Your task to perform on an android device: Open calendar and show me the fourth week of next month Image 0: 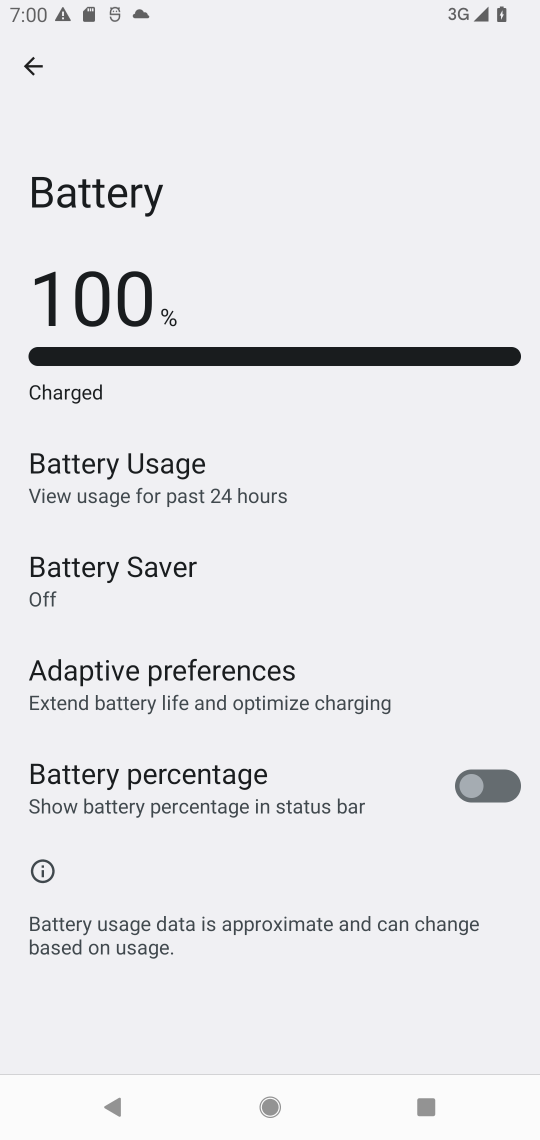
Step 0: press home button
Your task to perform on an android device: Open calendar and show me the fourth week of next month Image 1: 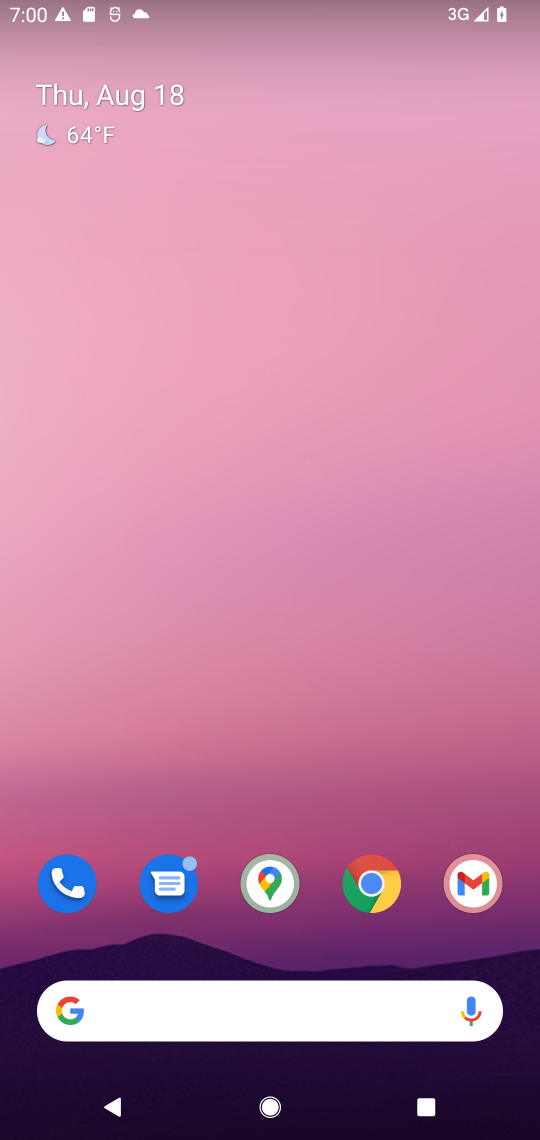
Step 1: drag from (30, 1077) to (329, 501)
Your task to perform on an android device: Open calendar and show me the fourth week of next month Image 2: 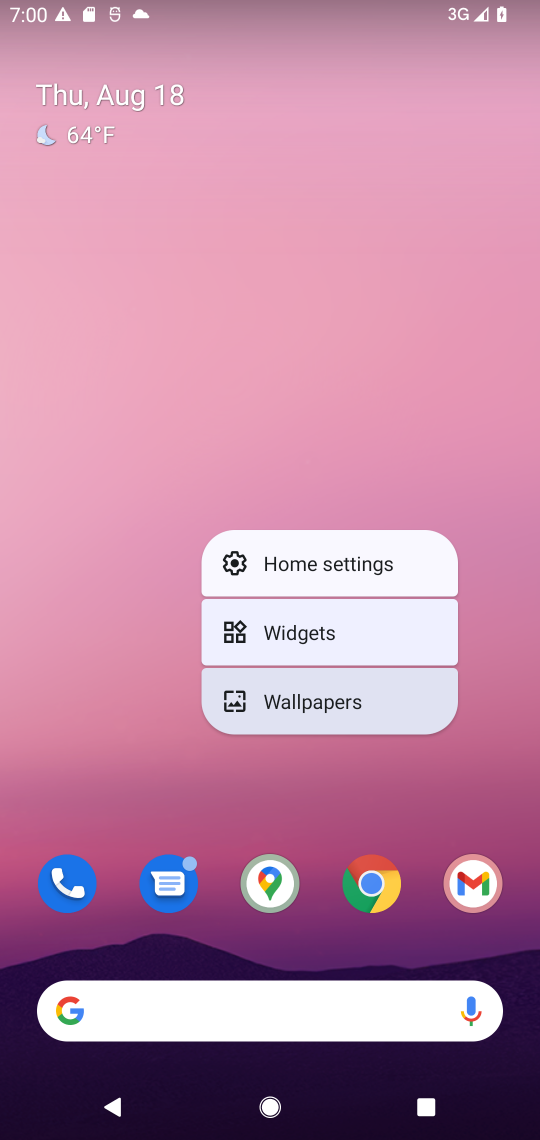
Step 2: drag from (32, 1105) to (215, 578)
Your task to perform on an android device: Open calendar and show me the fourth week of next month Image 3: 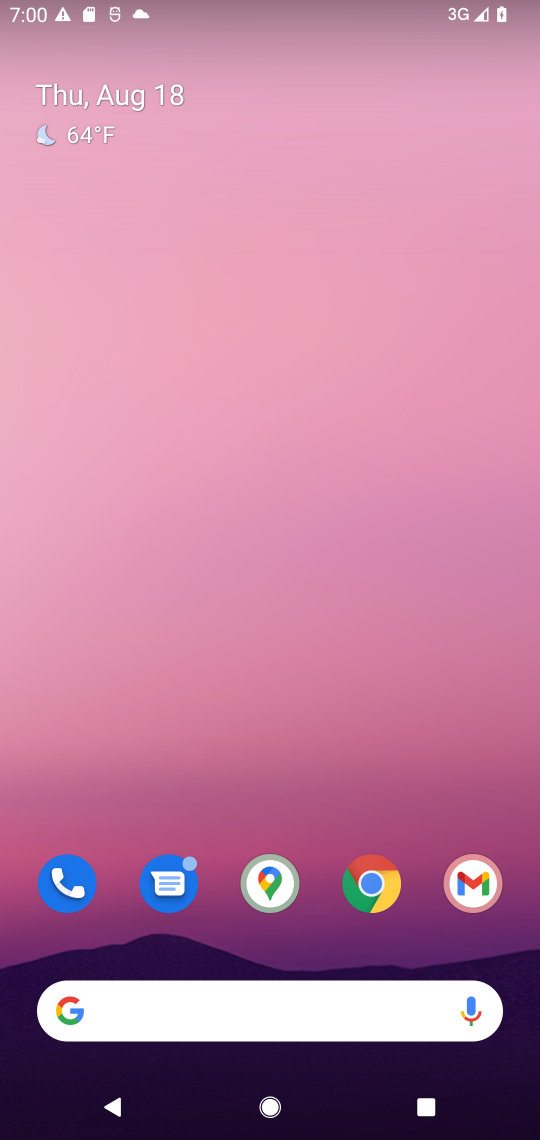
Step 3: drag from (27, 1093) to (207, 618)
Your task to perform on an android device: Open calendar and show me the fourth week of next month Image 4: 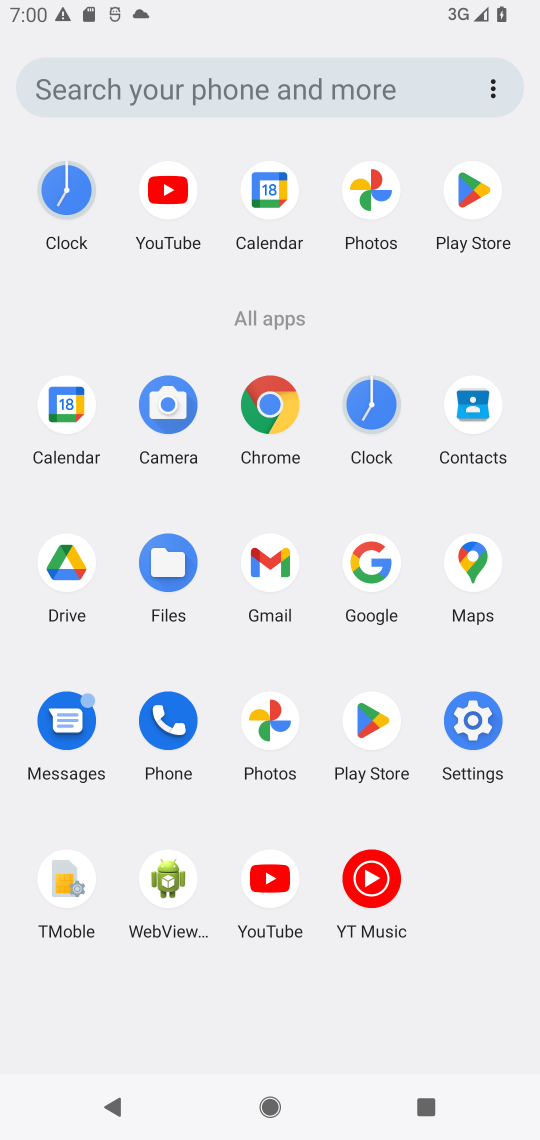
Step 4: click (64, 392)
Your task to perform on an android device: Open calendar and show me the fourth week of next month Image 5: 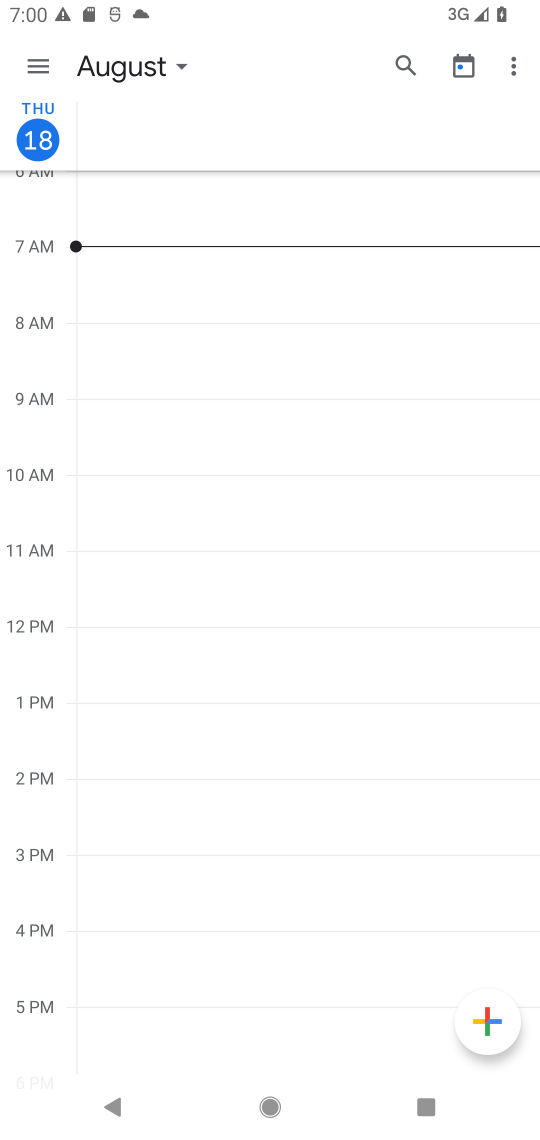
Step 5: click (152, 77)
Your task to perform on an android device: Open calendar and show me the fourth week of next month Image 6: 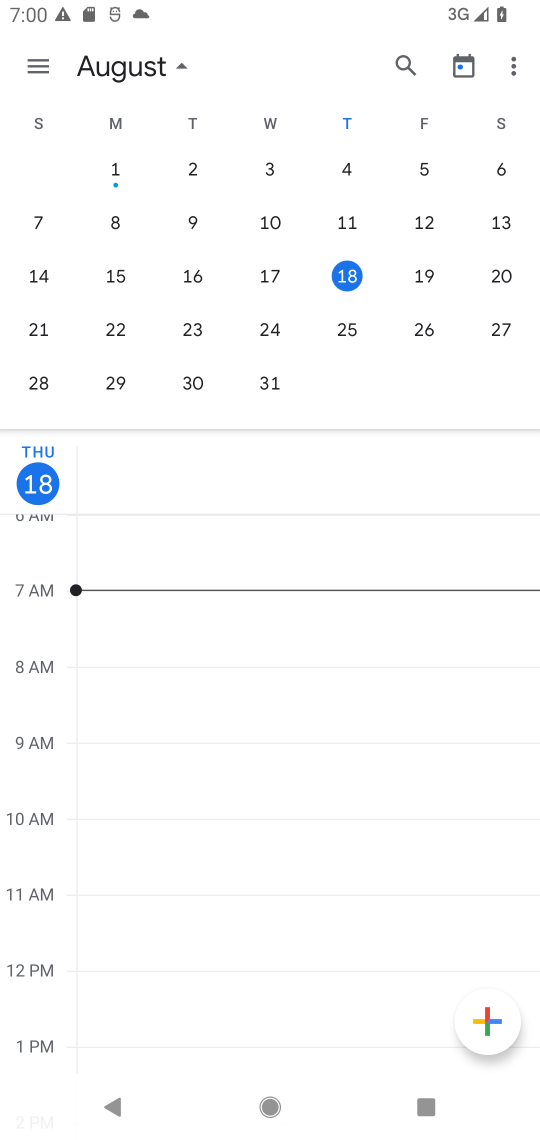
Step 6: drag from (522, 188) to (35, 425)
Your task to perform on an android device: Open calendar and show me the fourth week of next month Image 7: 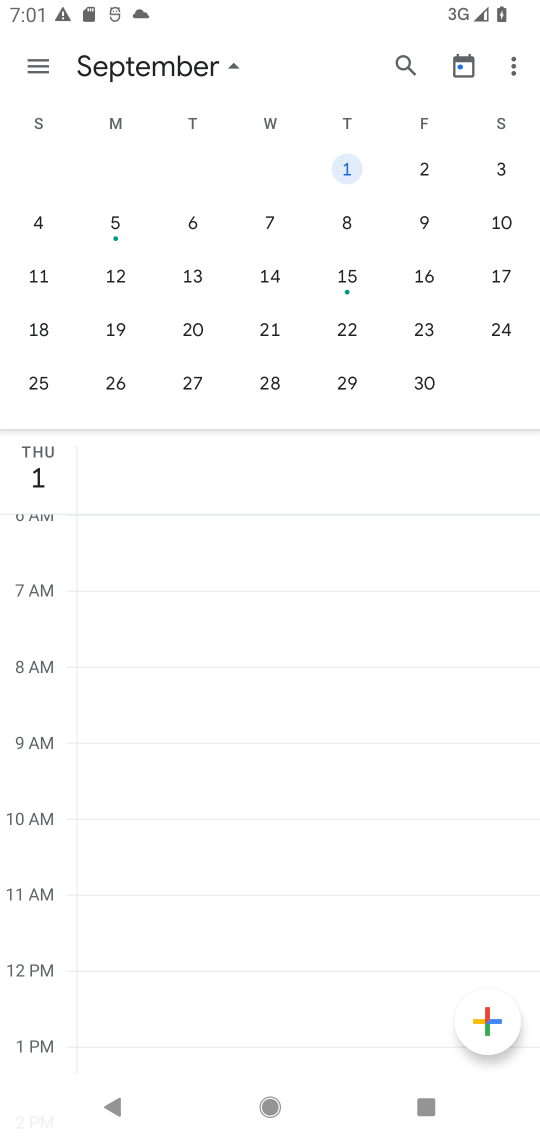
Step 7: click (113, 322)
Your task to perform on an android device: Open calendar and show me the fourth week of next month Image 8: 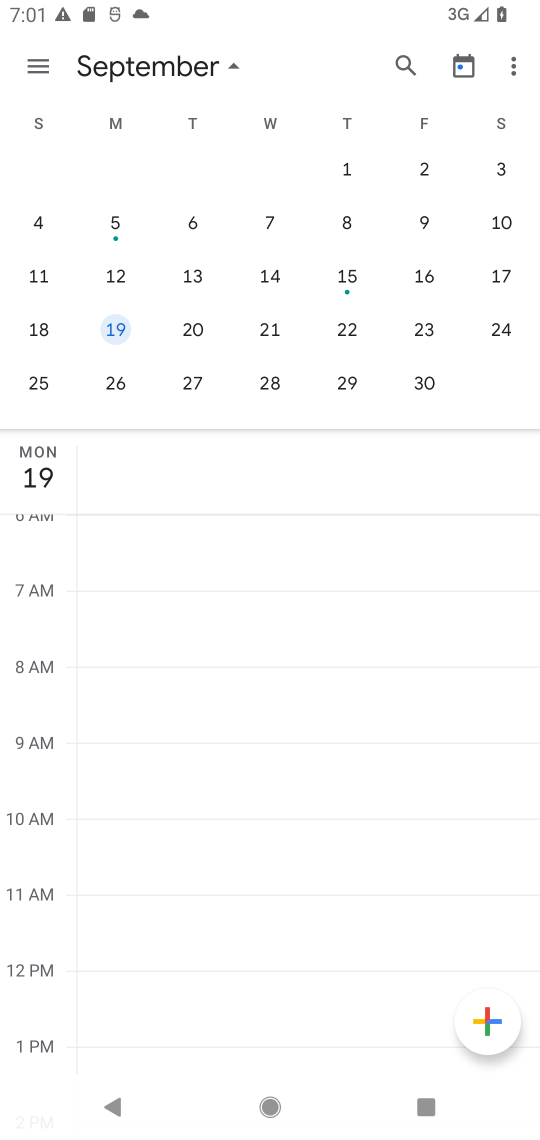
Step 8: task complete